Your task to perform on an android device: Open Google Chrome Image 0: 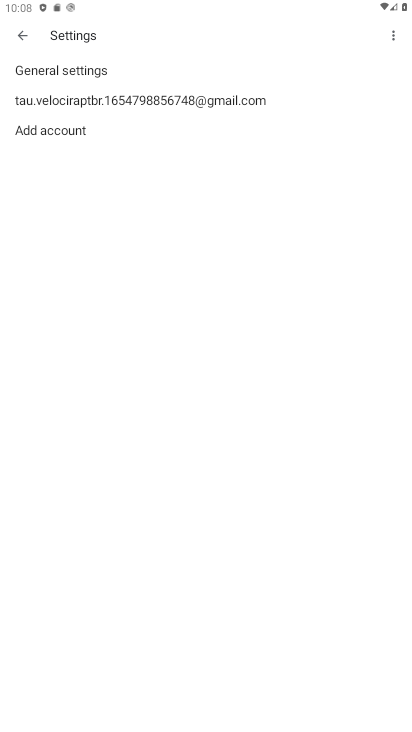
Step 0: press home button
Your task to perform on an android device: Open Google Chrome Image 1: 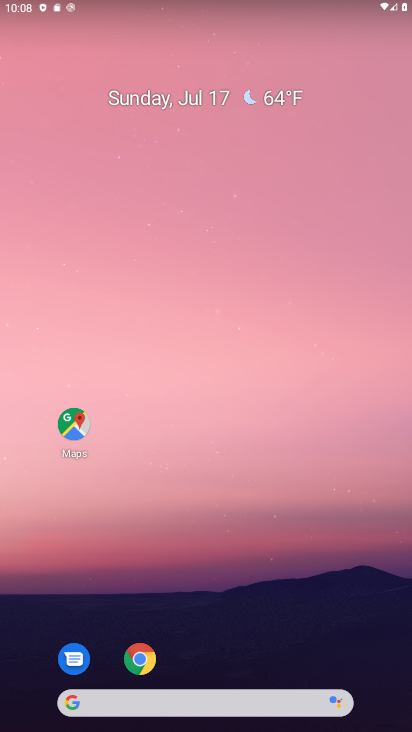
Step 1: click (147, 669)
Your task to perform on an android device: Open Google Chrome Image 2: 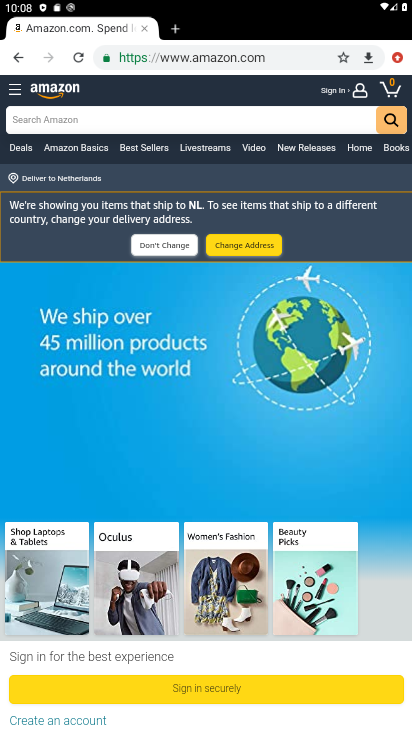
Step 2: task complete